Your task to perform on an android device: Go to calendar. Show me events next week Image 0: 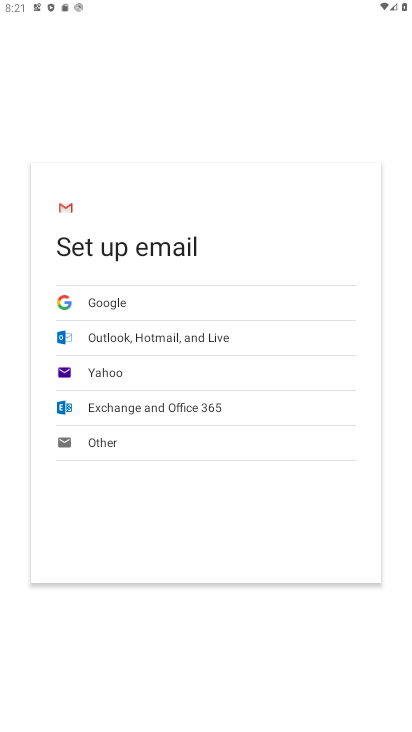
Step 0: press home button
Your task to perform on an android device: Go to calendar. Show me events next week Image 1: 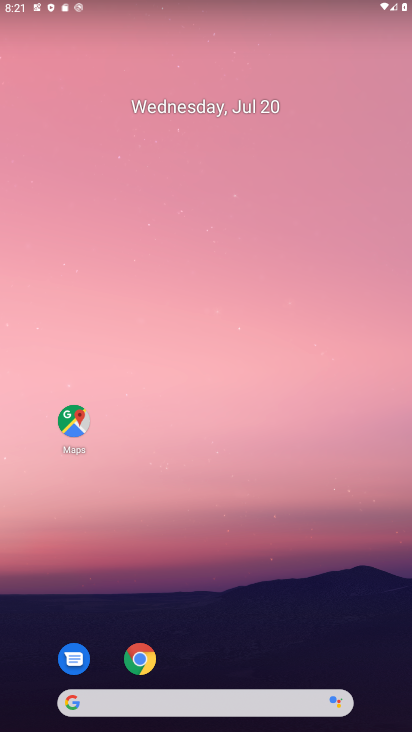
Step 1: drag from (280, 650) to (249, 108)
Your task to perform on an android device: Go to calendar. Show me events next week Image 2: 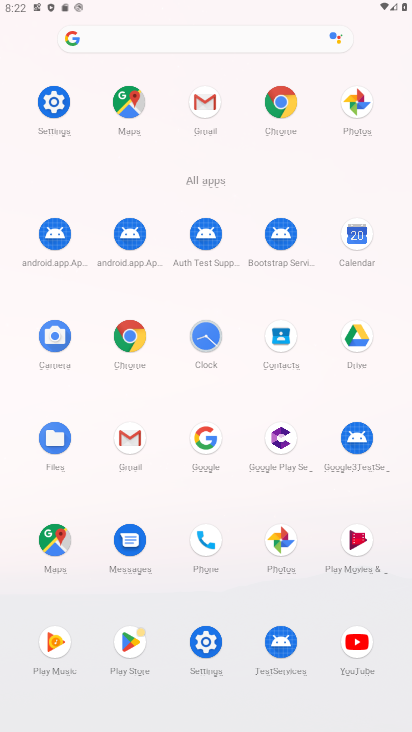
Step 2: click (360, 244)
Your task to perform on an android device: Go to calendar. Show me events next week Image 3: 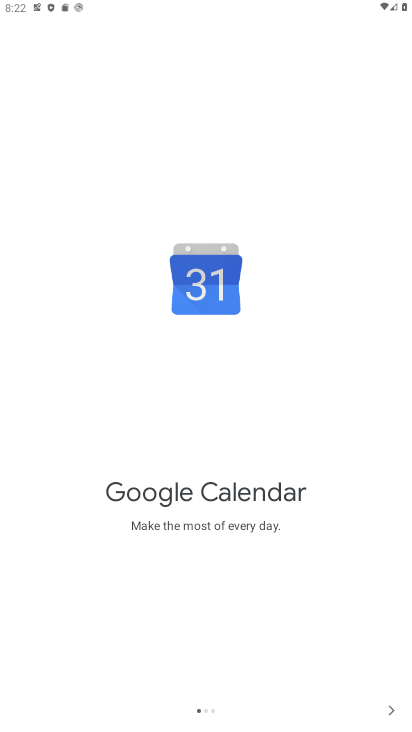
Step 3: click (393, 706)
Your task to perform on an android device: Go to calendar. Show me events next week Image 4: 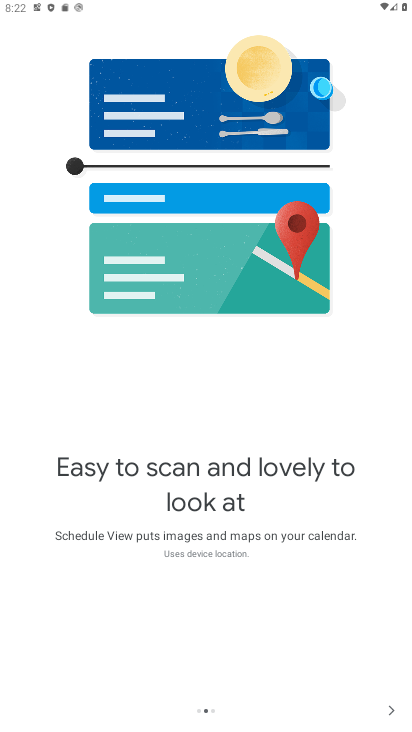
Step 4: click (393, 706)
Your task to perform on an android device: Go to calendar. Show me events next week Image 5: 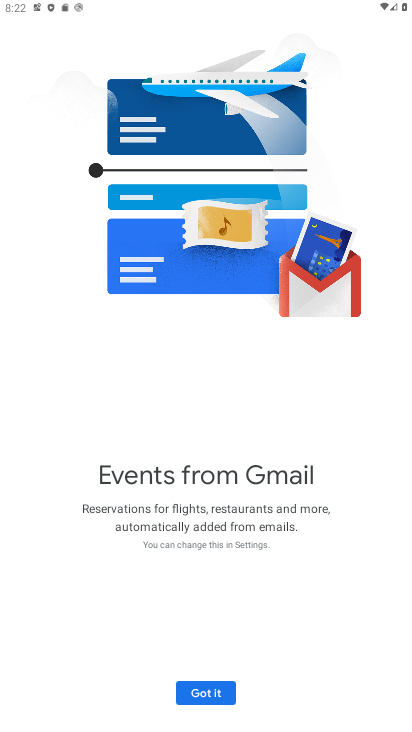
Step 5: click (201, 688)
Your task to perform on an android device: Go to calendar. Show me events next week Image 6: 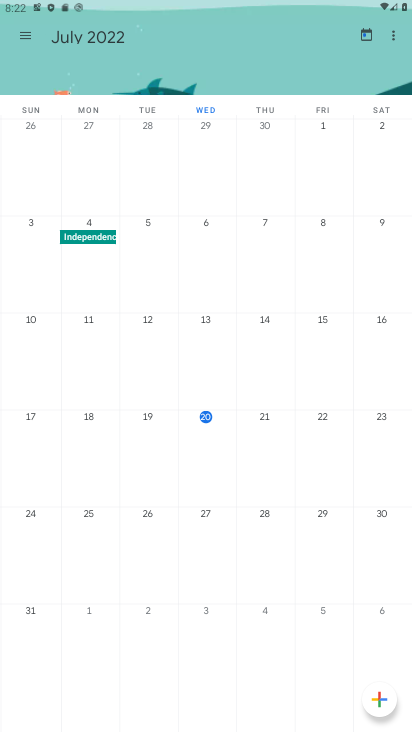
Step 6: click (319, 512)
Your task to perform on an android device: Go to calendar. Show me events next week Image 7: 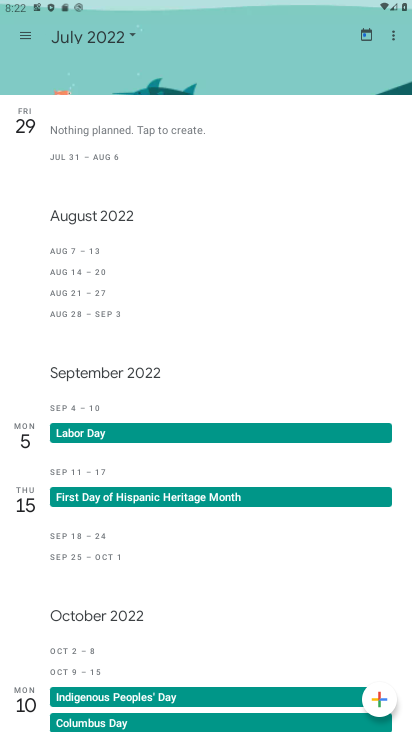
Step 7: task complete